Your task to perform on an android device: remove spam from my inbox in the gmail app Image 0: 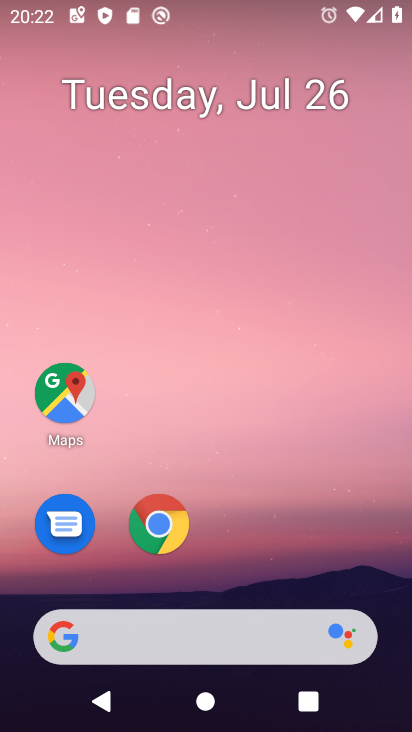
Step 0: drag from (298, 529) to (294, 88)
Your task to perform on an android device: remove spam from my inbox in the gmail app Image 1: 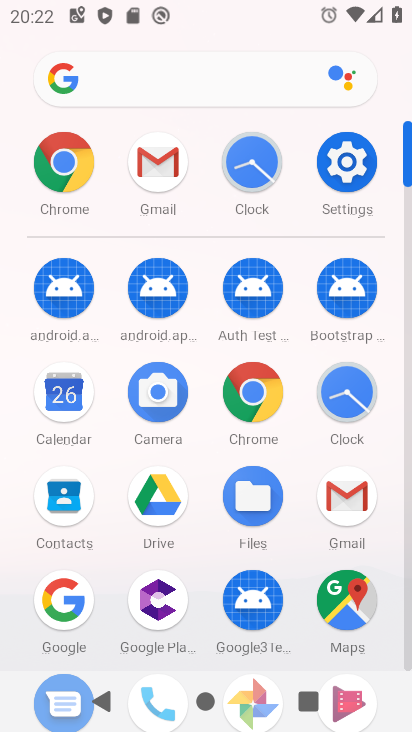
Step 1: click (159, 168)
Your task to perform on an android device: remove spam from my inbox in the gmail app Image 2: 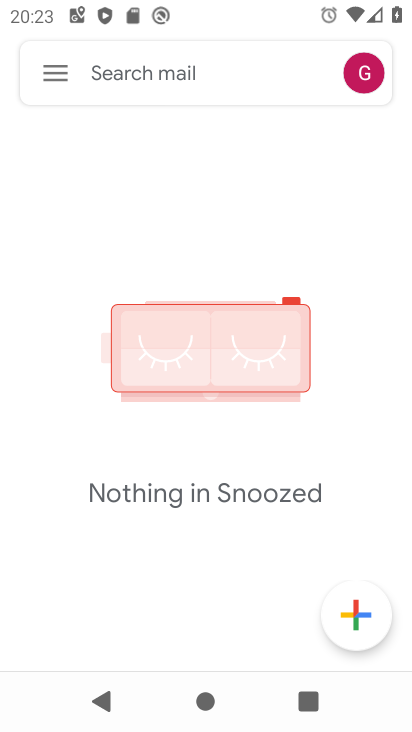
Step 2: click (50, 68)
Your task to perform on an android device: remove spam from my inbox in the gmail app Image 3: 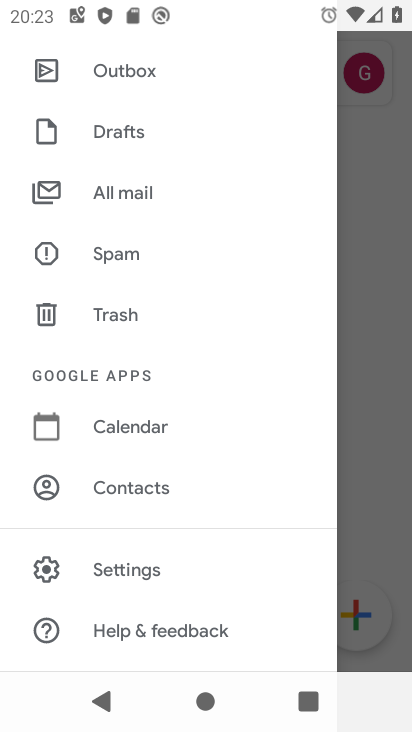
Step 3: click (119, 245)
Your task to perform on an android device: remove spam from my inbox in the gmail app Image 4: 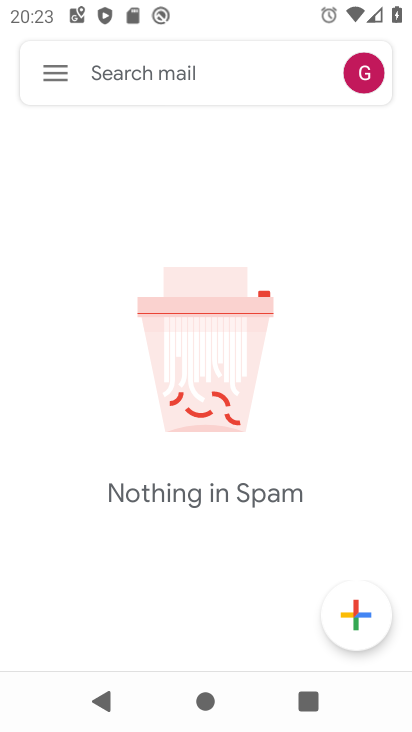
Step 4: task complete